Your task to perform on an android device: open wifi settings Image 0: 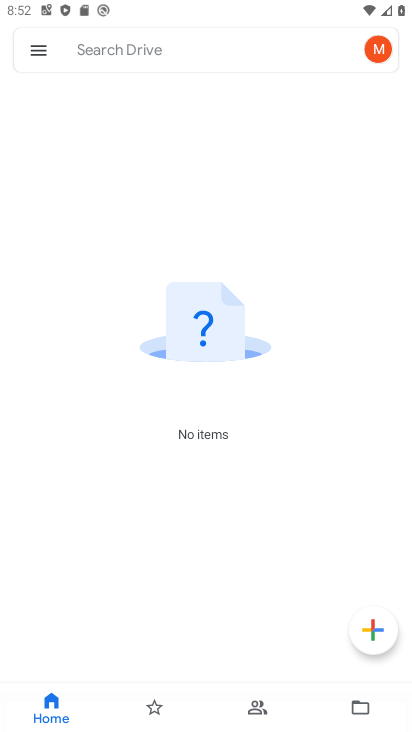
Step 0: press home button
Your task to perform on an android device: open wifi settings Image 1: 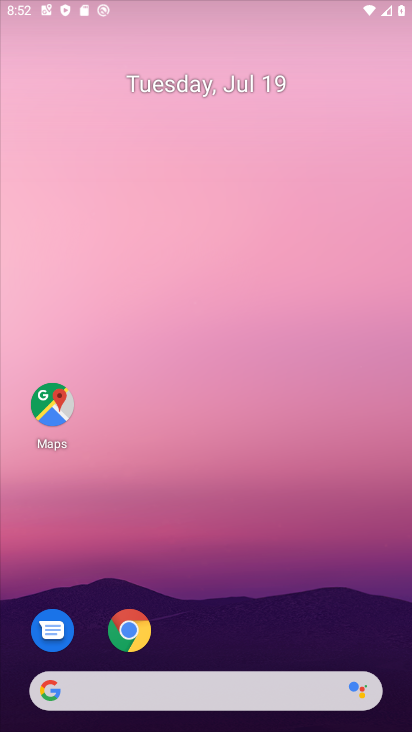
Step 1: drag from (222, 636) to (308, 141)
Your task to perform on an android device: open wifi settings Image 2: 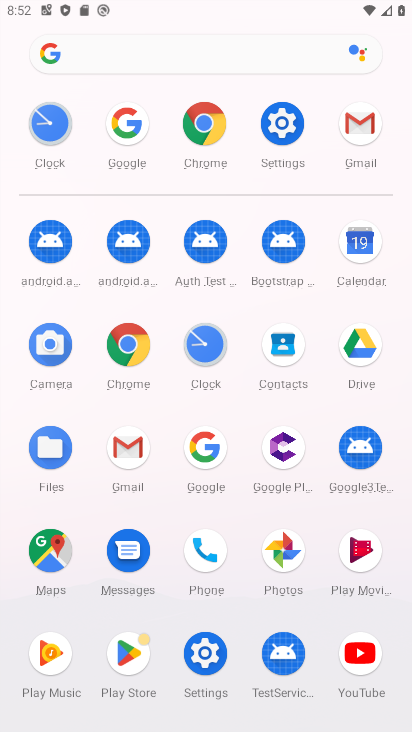
Step 2: click (284, 125)
Your task to perform on an android device: open wifi settings Image 3: 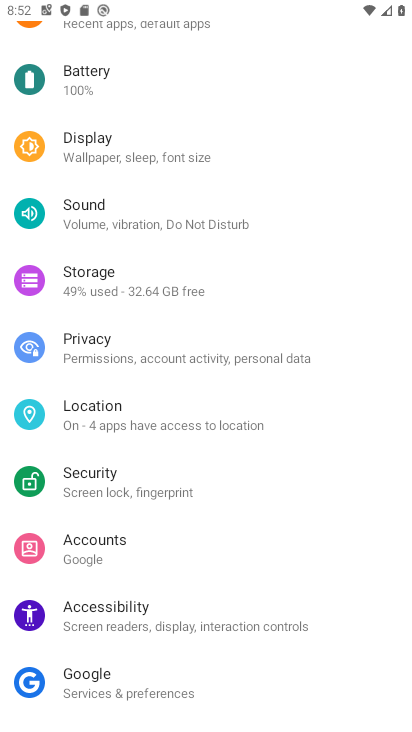
Step 3: drag from (156, 91) to (150, 639)
Your task to perform on an android device: open wifi settings Image 4: 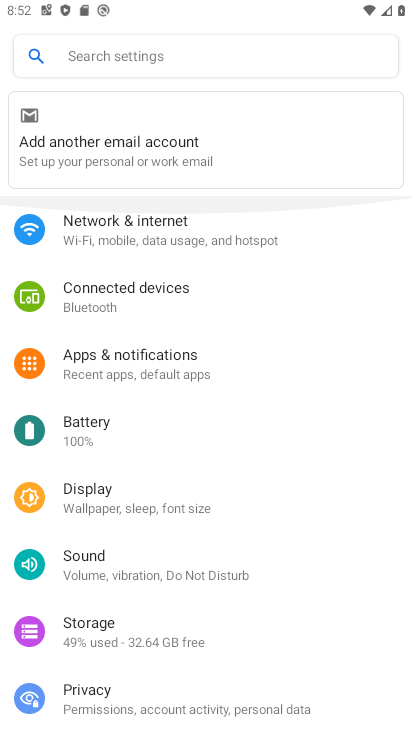
Step 4: click (117, 225)
Your task to perform on an android device: open wifi settings Image 5: 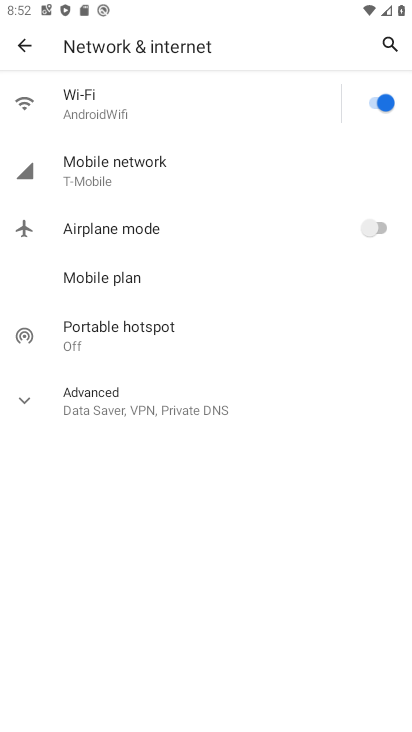
Step 5: click (107, 101)
Your task to perform on an android device: open wifi settings Image 6: 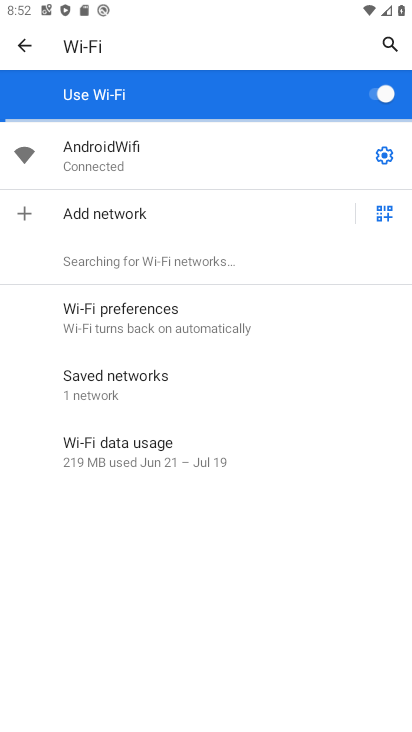
Step 6: click (204, 160)
Your task to perform on an android device: open wifi settings Image 7: 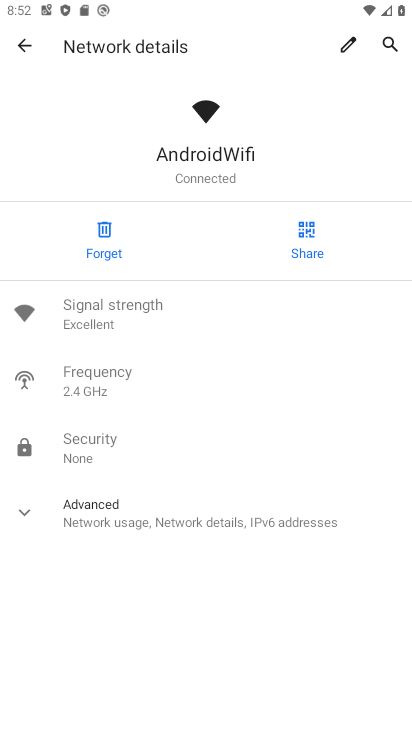
Step 7: task complete